Your task to perform on an android device: delete browsing data in the chrome app Image 0: 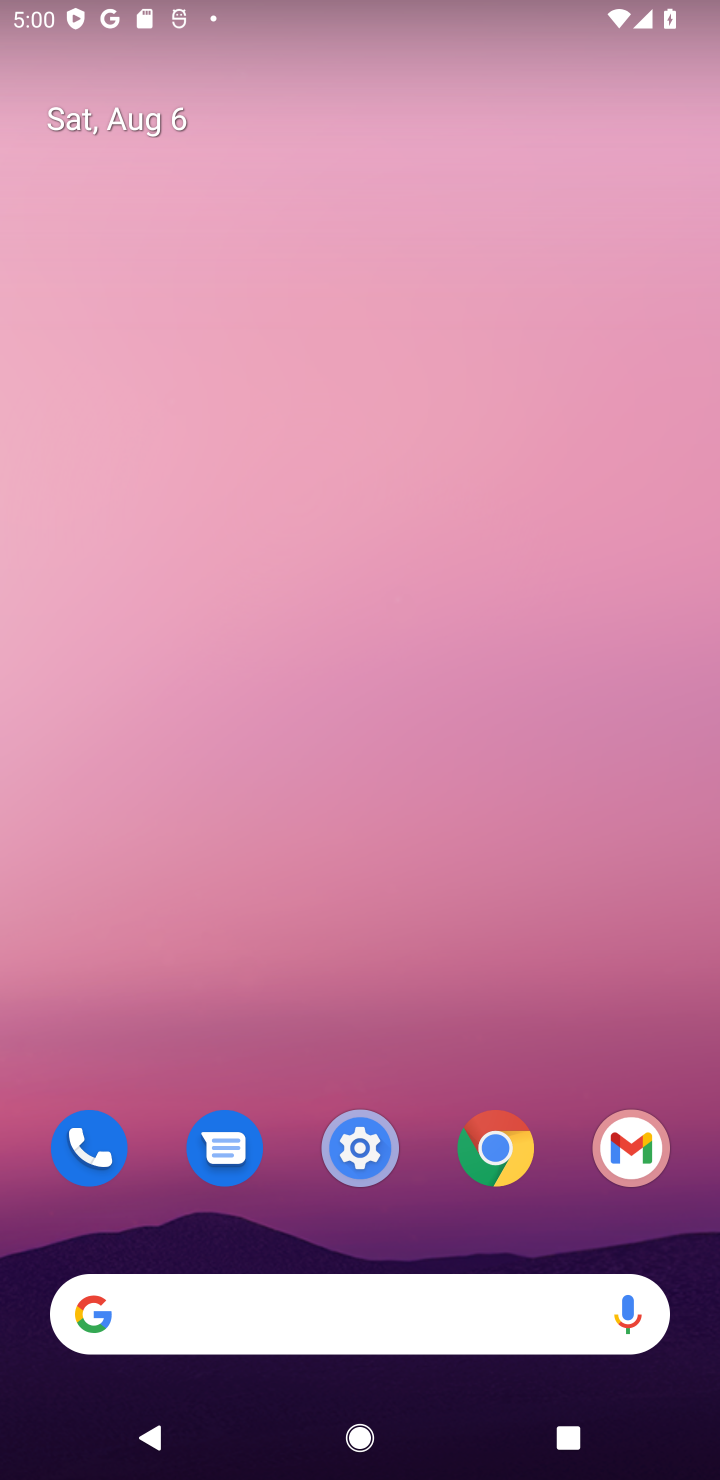
Step 0: drag from (394, 965) to (265, 60)
Your task to perform on an android device: delete browsing data in the chrome app Image 1: 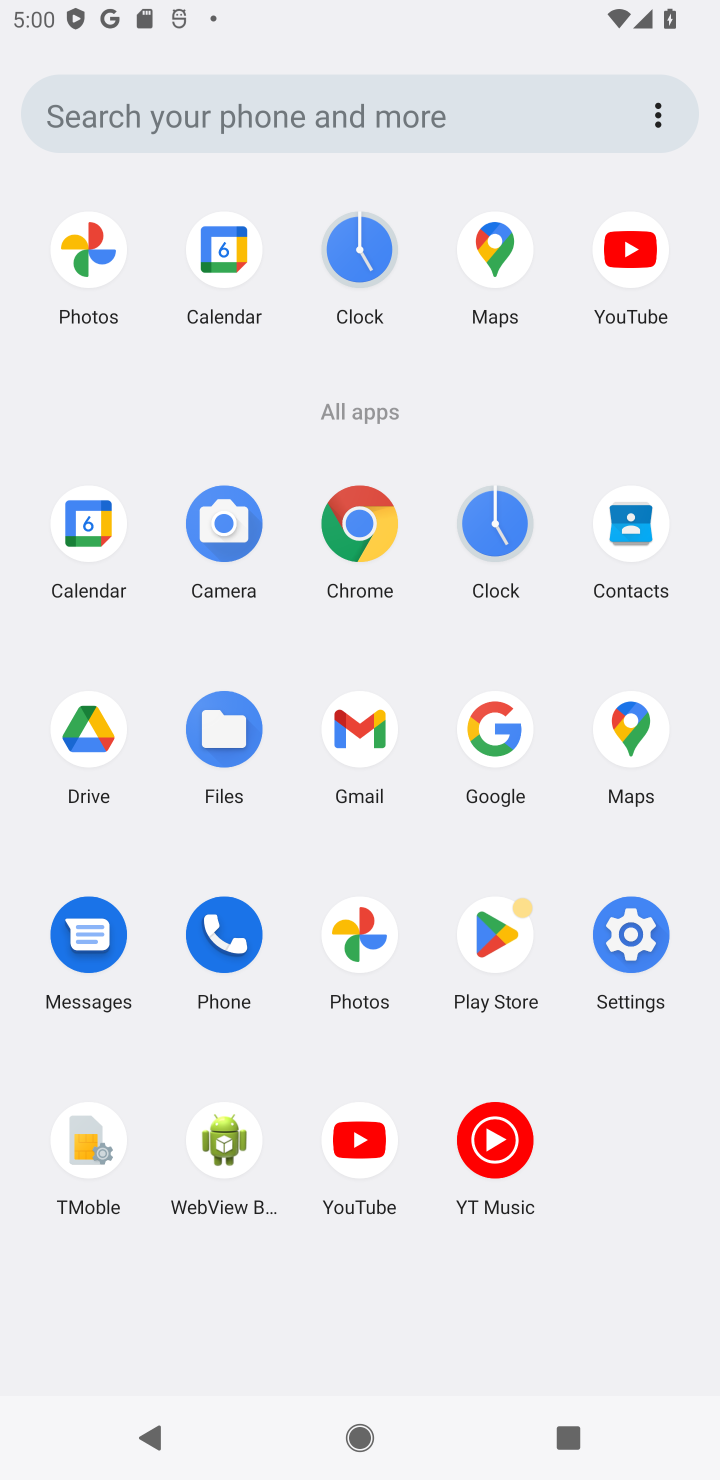
Step 1: click (380, 571)
Your task to perform on an android device: delete browsing data in the chrome app Image 2: 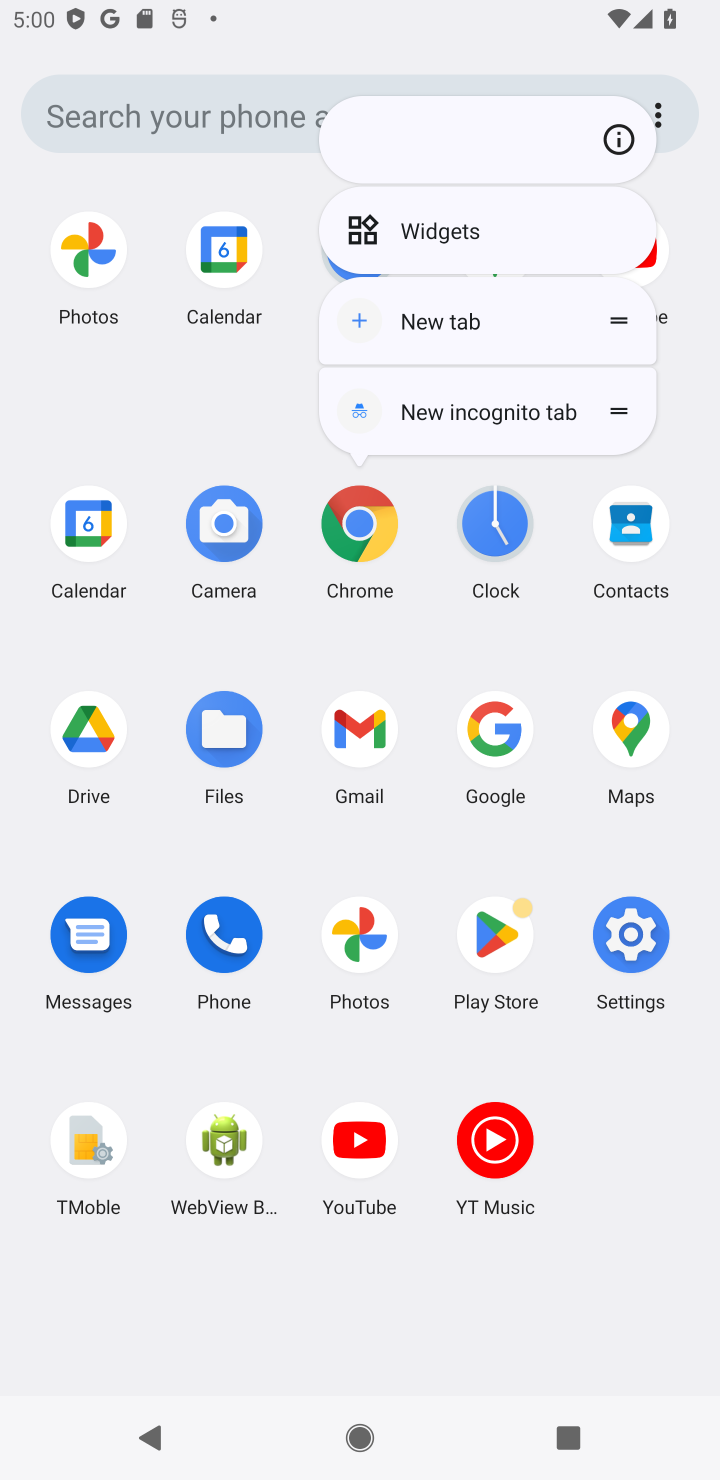
Step 2: click (383, 531)
Your task to perform on an android device: delete browsing data in the chrome app Image 3: 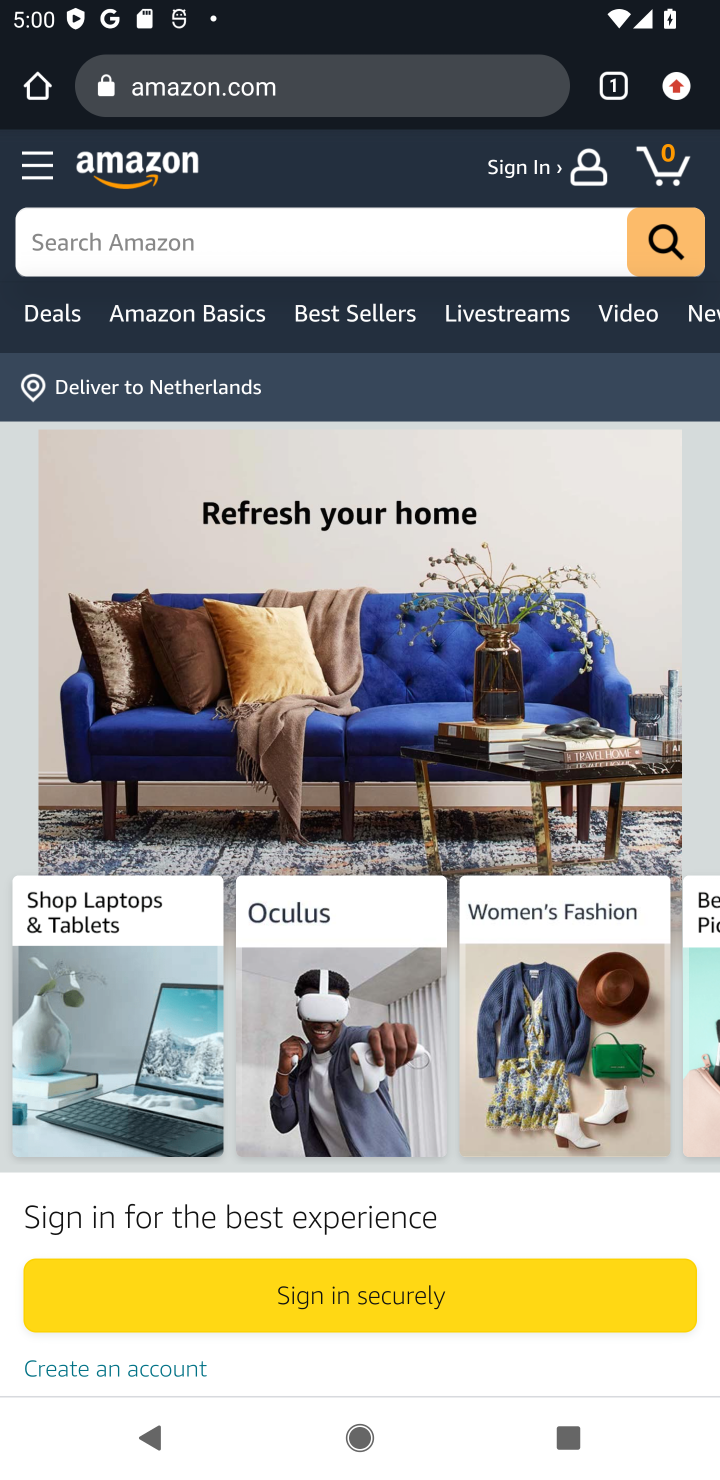
Step 3: drag from (678, 72) to (459, 584)
Your task to perform on an android device: delete browsing data in the chrome app Image 4: 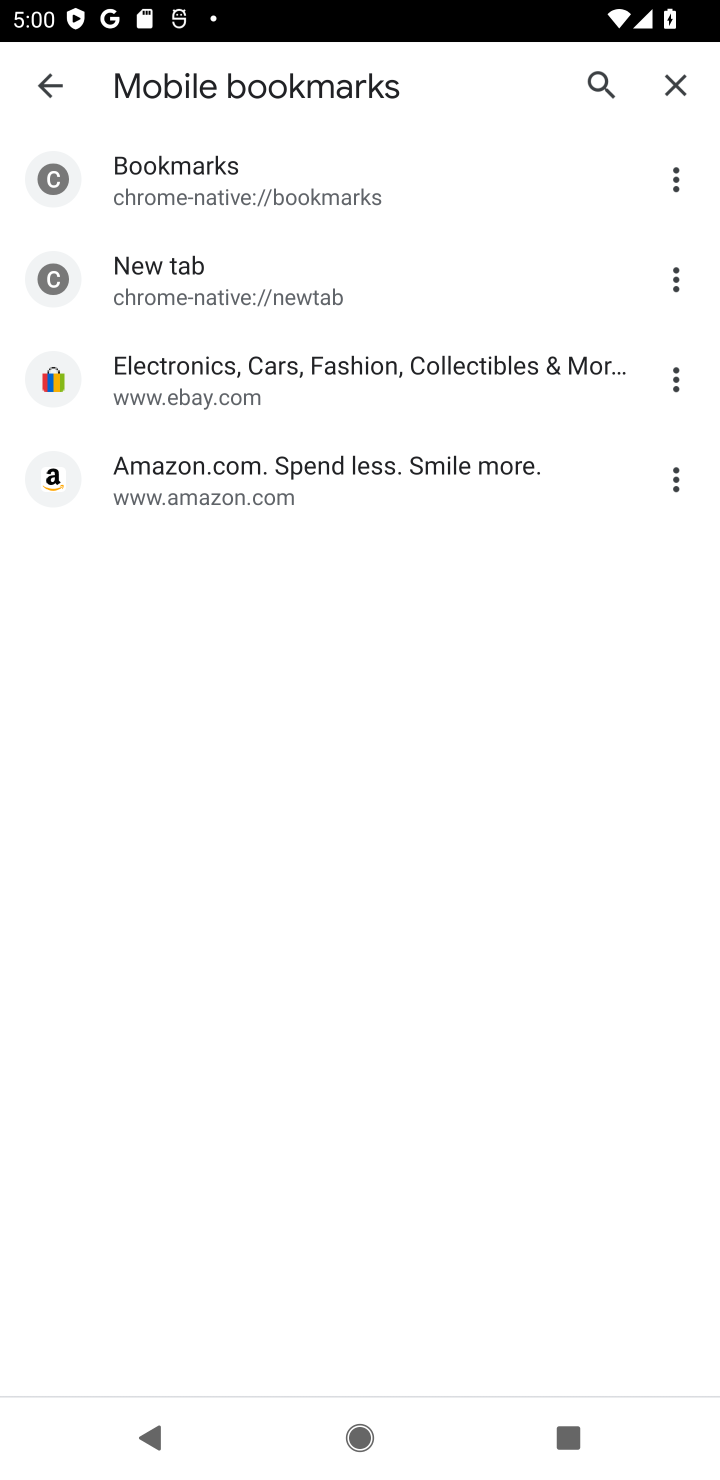
Step 4: click (195, 181)
Your task to perform on an android device: delete browsing data in the chrome app Image 5: 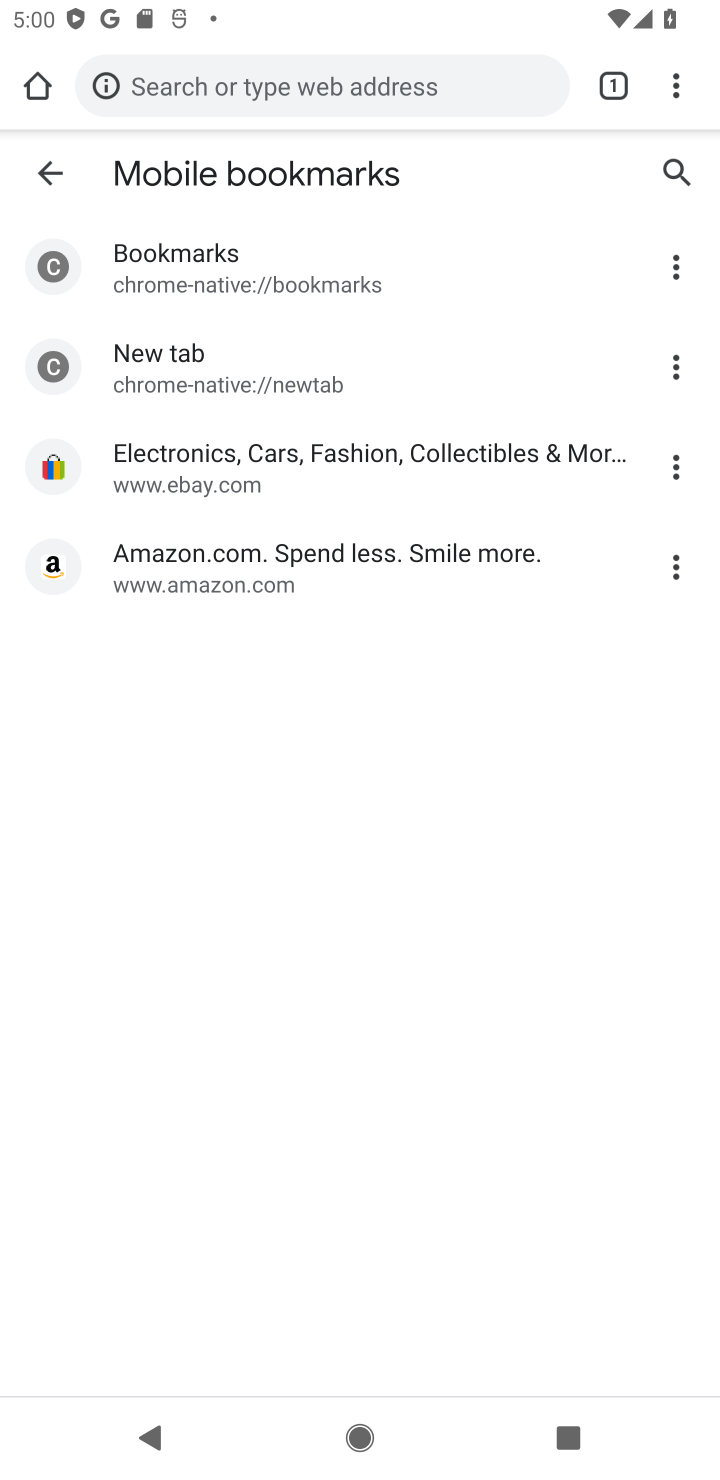
Step 5: task complete